Your task to perform on an android device: delete browsing data in the chrome app Image 0: 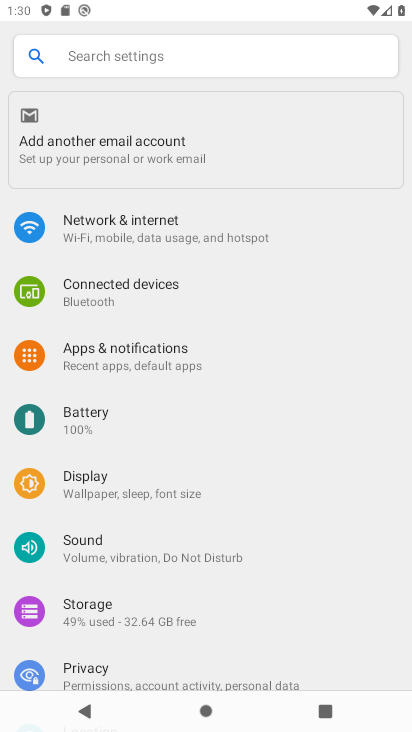
Step 0: press home button
Your task to perform on an android device: delete browsing data in the chrome app Image 1: 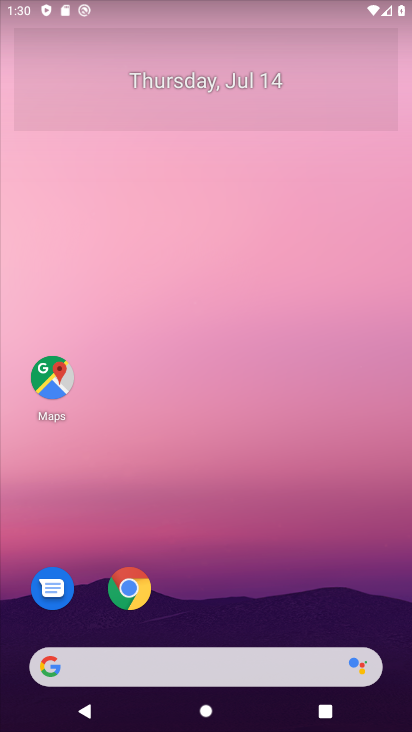
Step 1: drag from (269, 550) to (162, 23)
Your task to perform on an android device: delete browsing data in the chrome app Image 2: 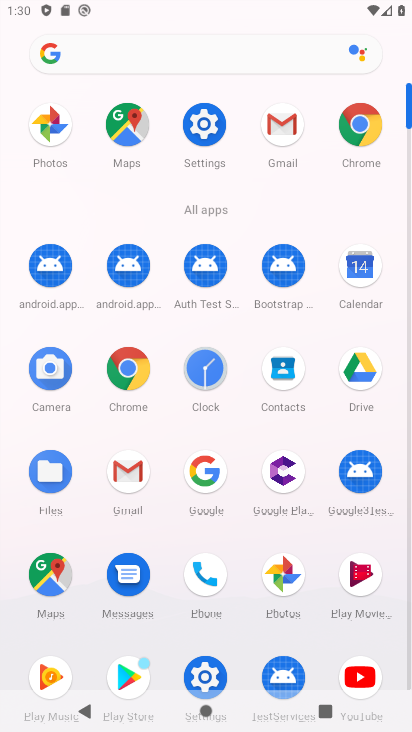
Step 2: click (350, 130)
Your task to perform on an android device: delete browsing data in the chrome app Image 3: 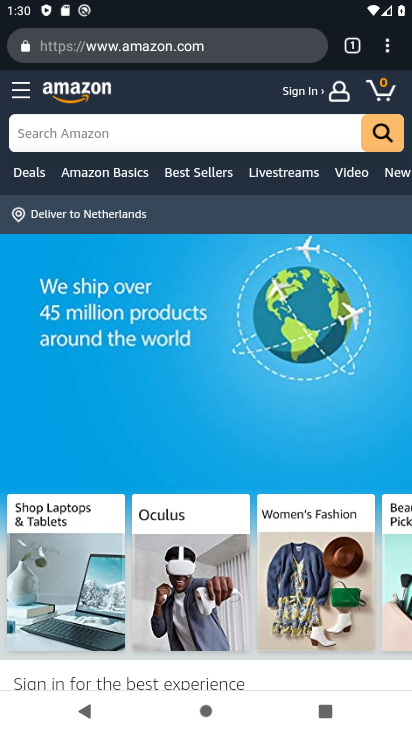
Step 3: drag from (389, 49) to (267, 261)
Your task to perform on an android device: delete browsing data in the chrome app Image 4: 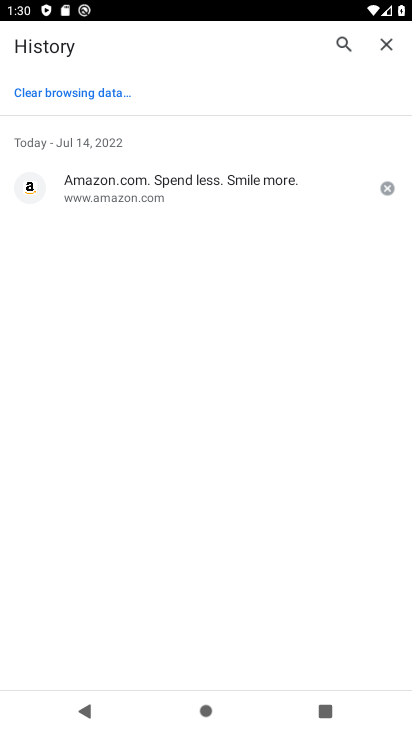
Step 4: click (22, 91)
Your task to perform on an android device: delete browsing data in the chrome app Image 5: 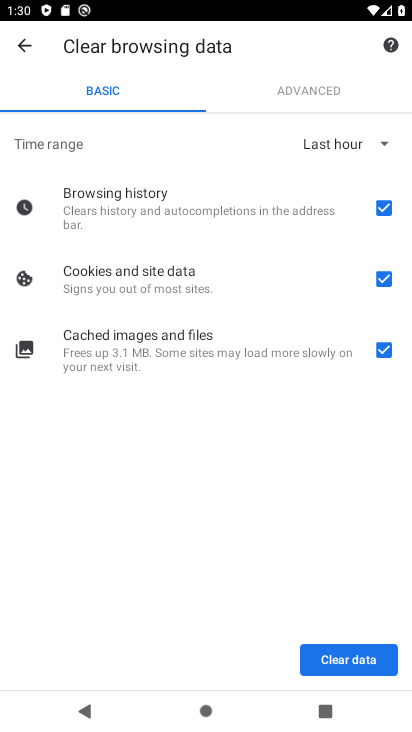
Step 5: click (323, 649)
Your task to perform on an android device: delete browsing data in the chrome app Image 6: 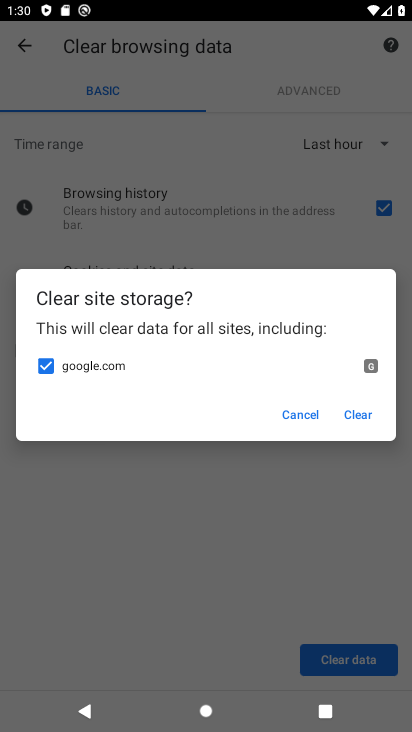
Step 6: click (352, 406)
Your task to perform on an android device: delete browsing data in the chrome app Image 7: 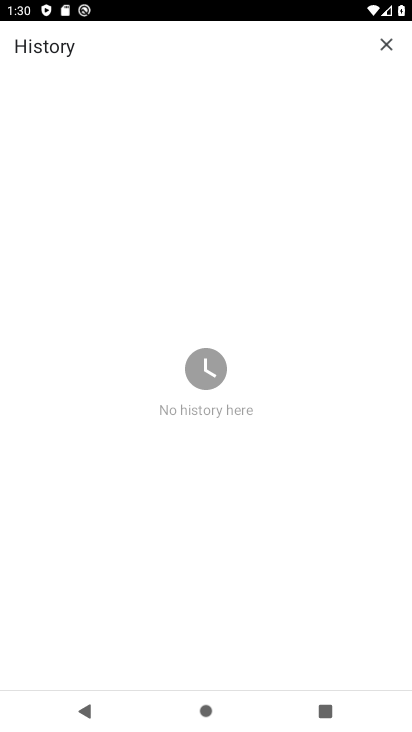
Step 7: task complete